Your task to perform on an android device: Search for Mexican restaurants on Maps Image 0: 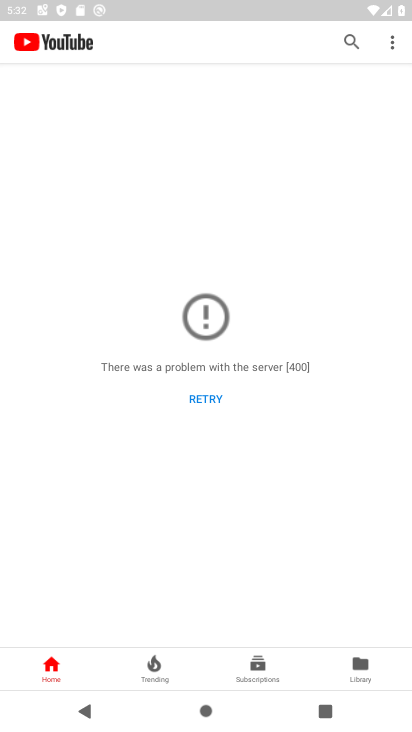
Step 0: press back button
Your task to perform on an android device: Search for Mexican restaurants on Maps Image 1: 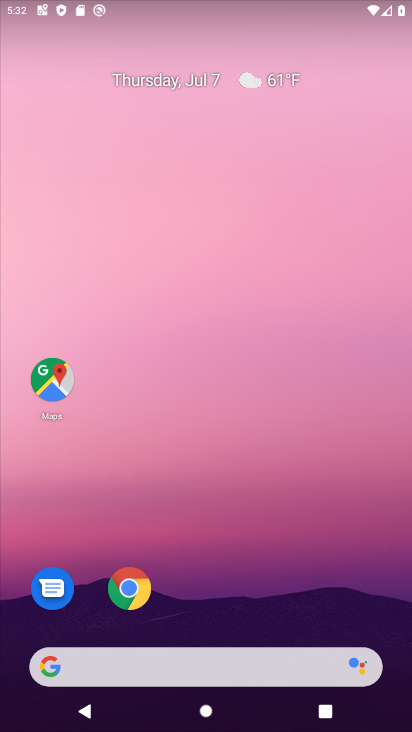
Step 1: click (49, 389)
Your task to perform on an android device: Search for Mexican restaurants on Maps Image 2: 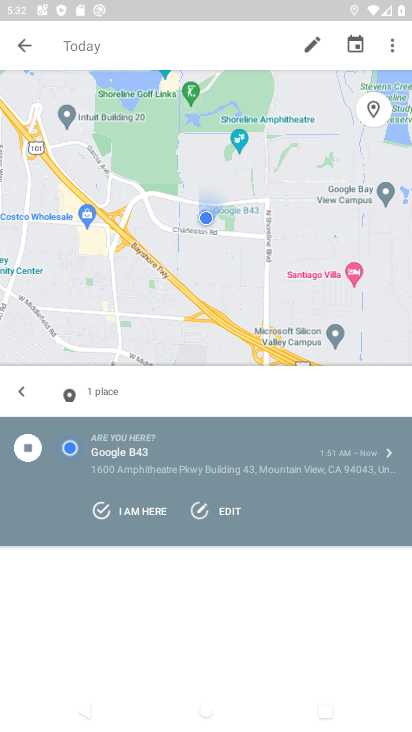
Step 2: click (24, 45)
Your task to perform on an android device: Search for Mexican restaurants on Maps Image 3: 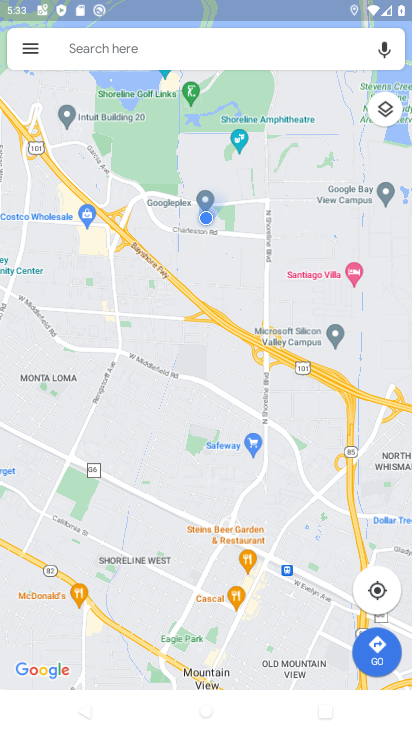
Step 3: click (222, 41)
Your task to perform on an android device: Search for Mexican restaurants on Maps Image 4: 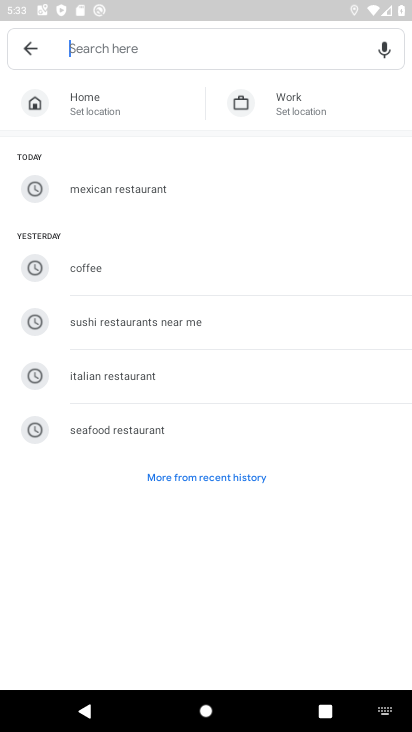
Step 4: click (133, 179)
Your task to perform on an android device: Search for Mexican restaurants on Maps Image 5: 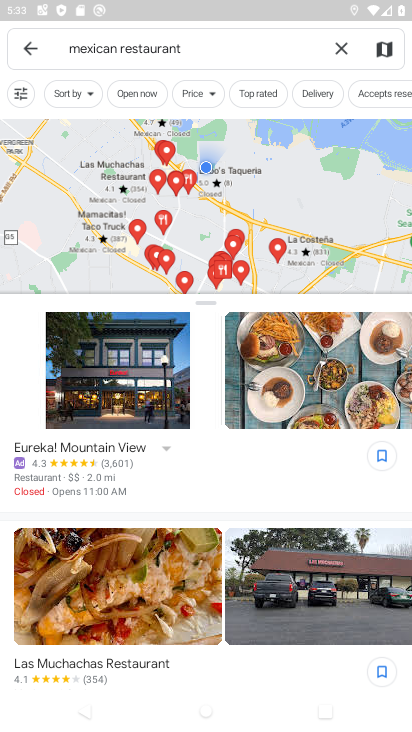
Step 5: task complete